Your task to perform on an android device: turn off improve location accuracy Image 0: 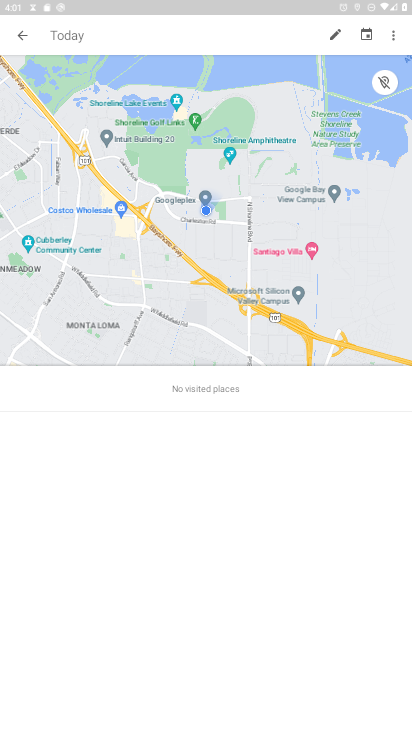
Step 0: click (142, 661)
Your task to perform on an android device: turn off improve location accuracy Image 1: 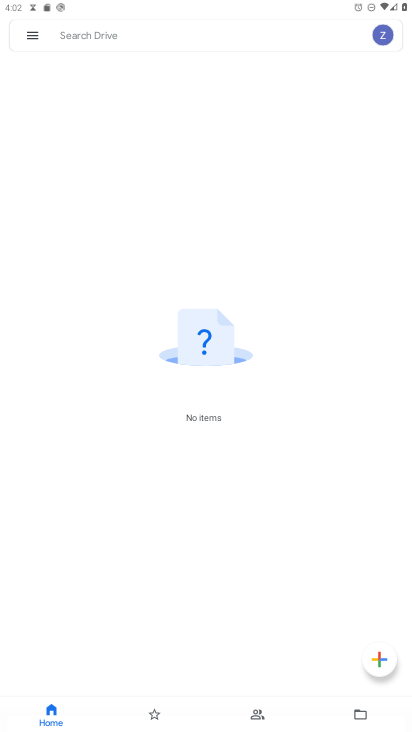
Step 1: press home button
Your task to perform on an android device: turn off improve location accuracy Image 2: 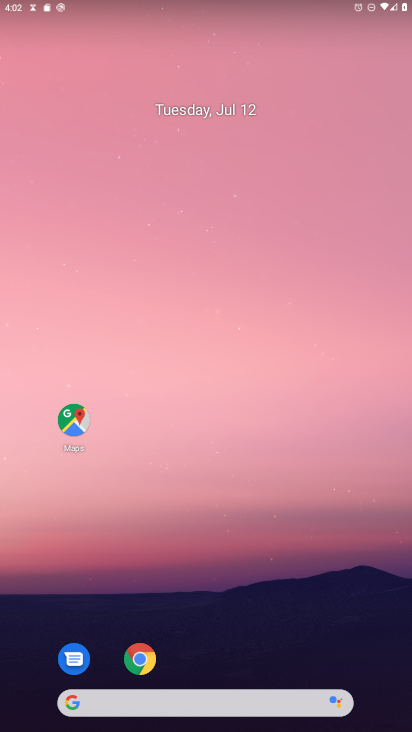
Step 2: drag from (213, 623) to (146, 201)
Your task to perform on an android device: turn off improve location accuracy Image 3: 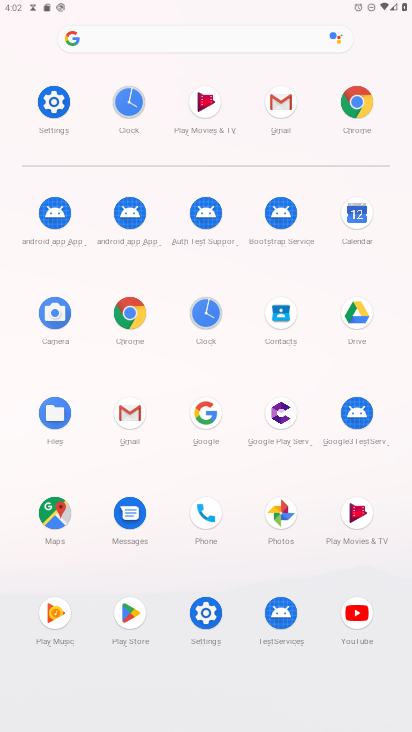
Step 3: click (199, 617)
Your task to perform on an android device: turn off improve location accuracy Image 4: 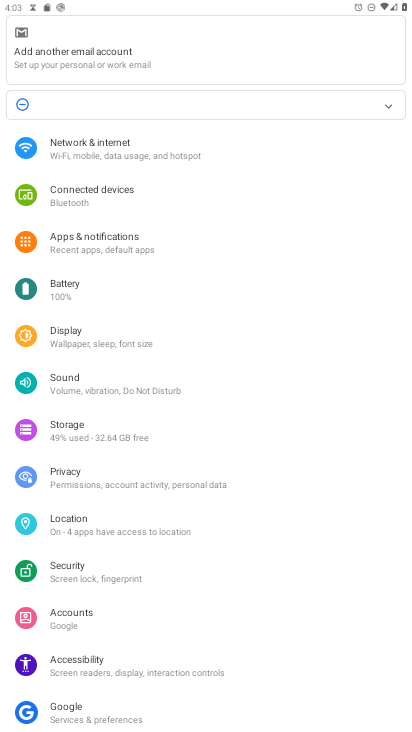
Step 4: click (89, 531)
Your task to perform on an android device: turn off improve location accuracy Image 5: 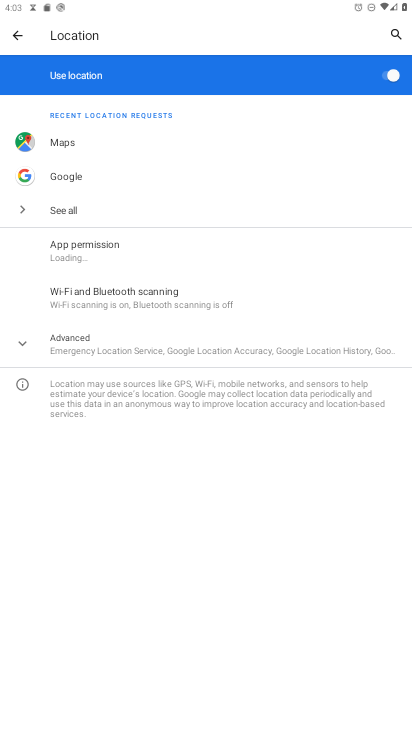
Step 5: click (51, 340)
Your task to perform on an android device: turn off improve location accuracy Image 6: 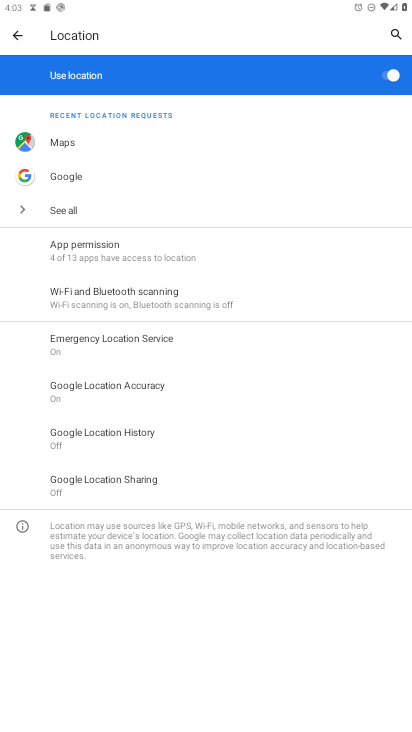
Step 6: click (113, 392)
Your task to perform on an android device: turn off improve location accuracy Image 7: 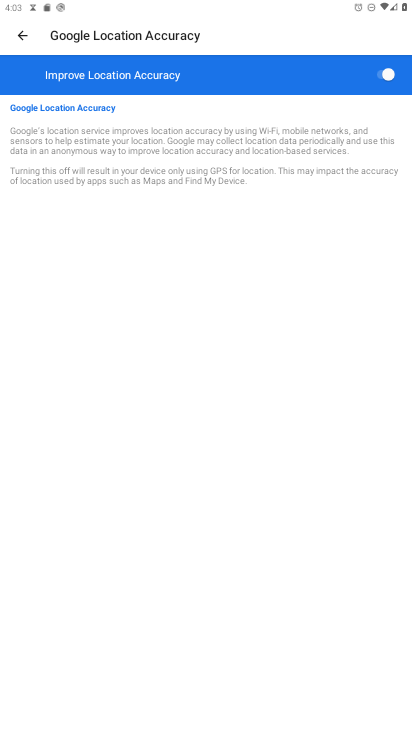
Step 7: click (379, 78)
Your task to perform on an android device: turn off improve location accuracy Image 8: 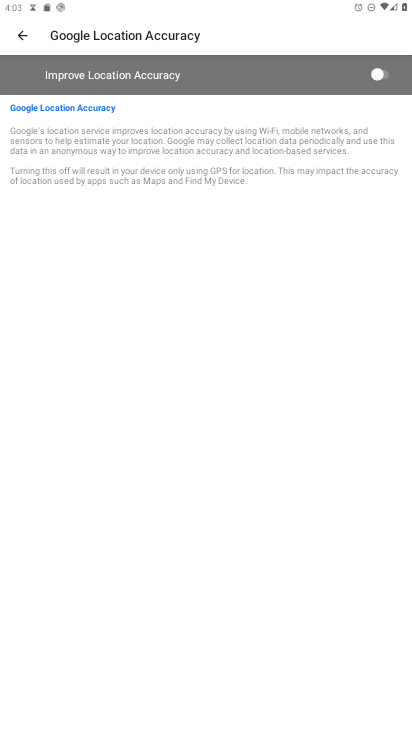
Step 8: task complete